Your task to perform on an android device: find which apps use the phone's location Image 0: 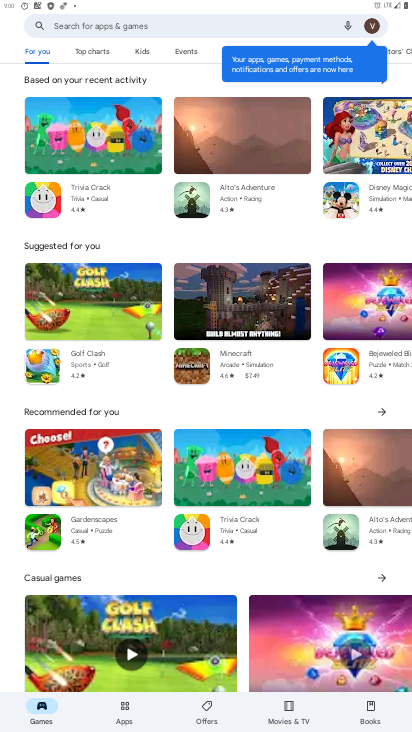
Step 0: press home button
Your task to perform on an android device: find which apps use the phone's location Image 1: 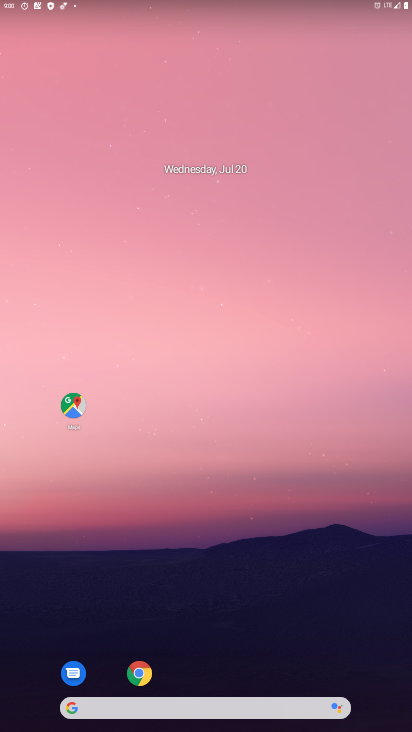
Step 1: drag from (186, 670) to (171, 83)
Your task to perform on an android device: find which apps use the phone's location Image 2: 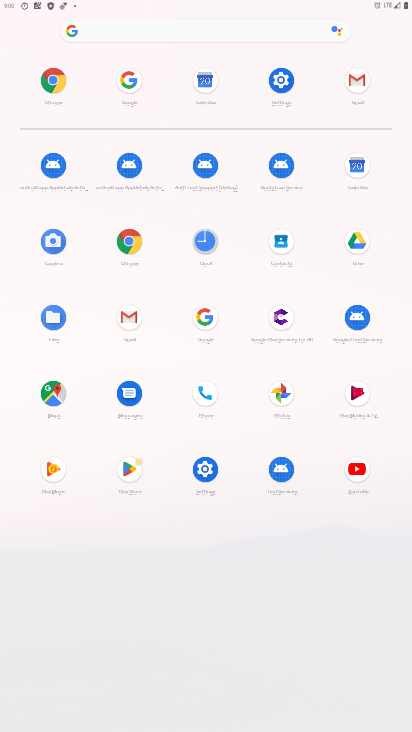
Step 2: click (204, 472)
Your task to perform on an android device: find which apps use the phone's location Image 3: 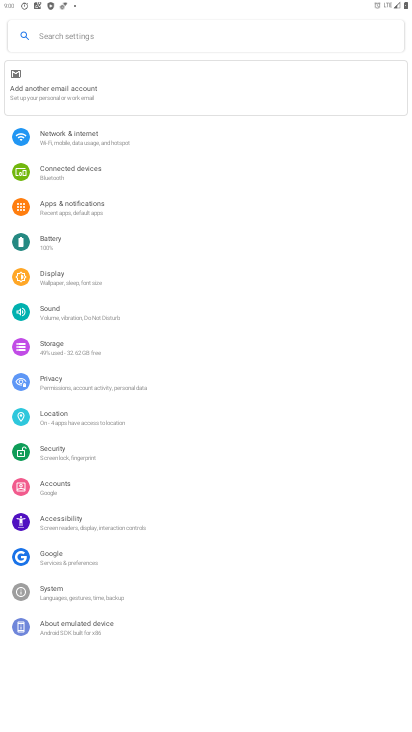
Step 3: click (51, 417)
Your task to perform on an android device: find which apps use the phone's location Image 4: 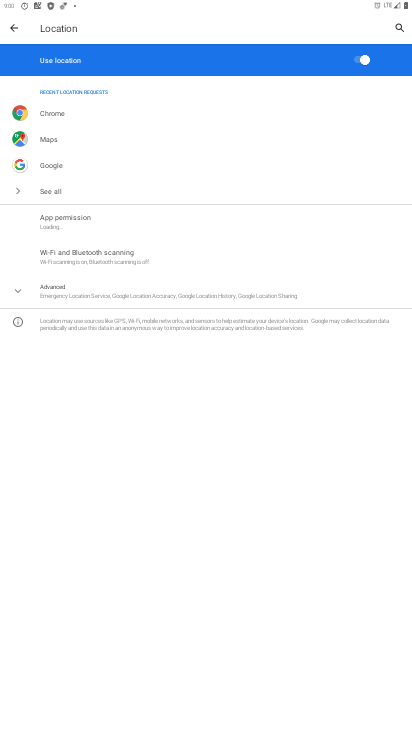
Step 4: click (77, 221)
Your task to perform on an android device: find which apps use the phone's location Image 5: 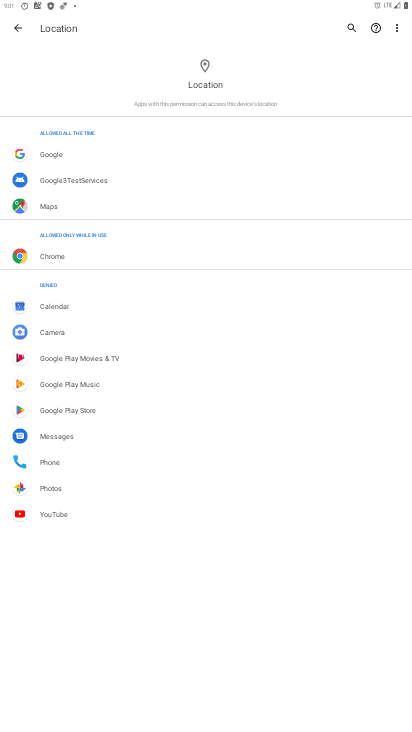
Step 5: task complete